Your task to perform on an android device: Open calendar and show me the third week of next month Image 0: 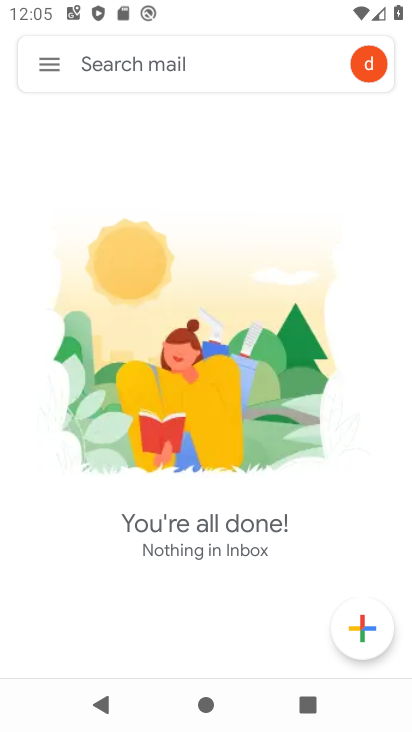
Step 0: press home button
Your task to perform on an android device: Open calendar and show me the third week of next month Image 1: 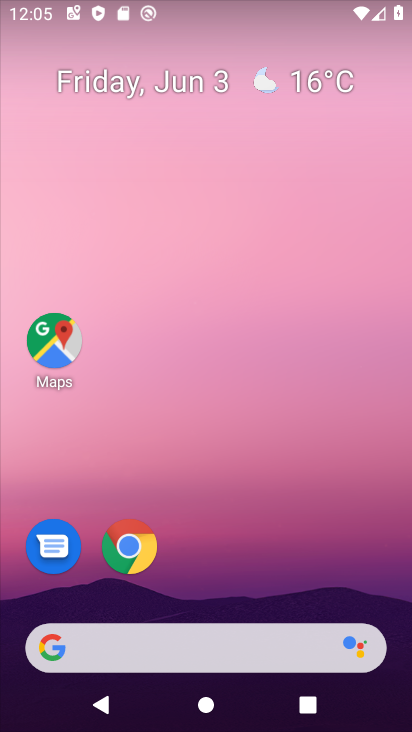
Step 1: drag from (236, 564) to (206, 91)
Your task to perform on an android device: Open calendar and show me the third week of next month Image 2: 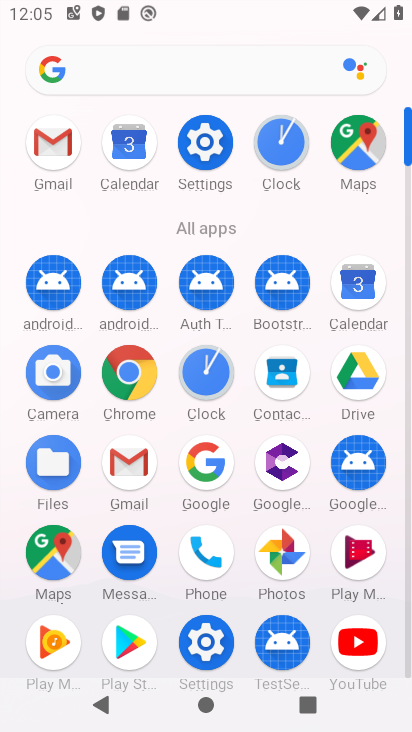
Step 2: click (357, 282)
Your task to perform on an android device: Open calendar and show me the third week of next month Image 3: 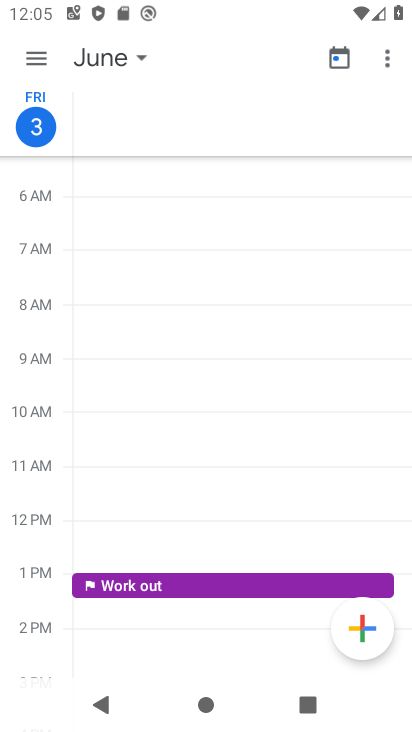
Step 3: click (33, 59)
Your task to perform on an android device: Open calendar and show me the third week of next month Image 4: 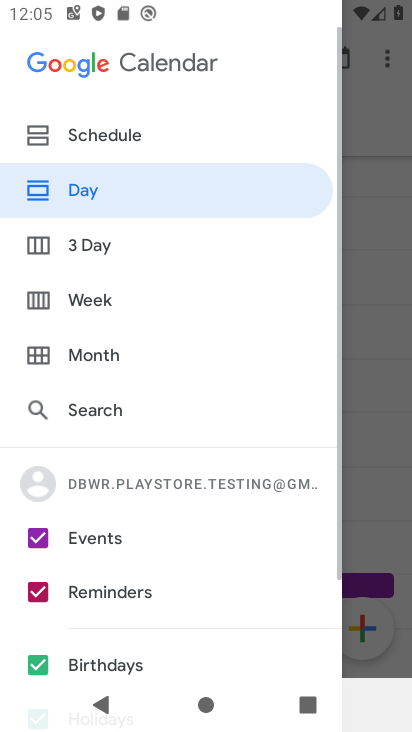
Step 4: click (85, 290)
Your task to perform on an android device: Open calendar and show me the third week of next month Image 5: 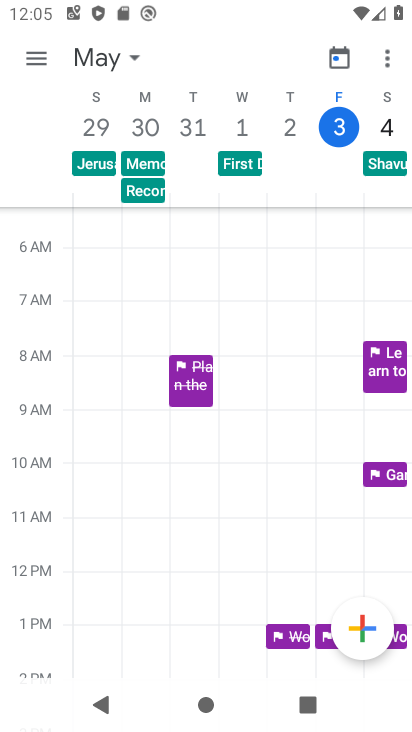
Step 5: click (134, 54)
Your task to perform on an android device: Open calendar and show me the third week of next month Image 6: 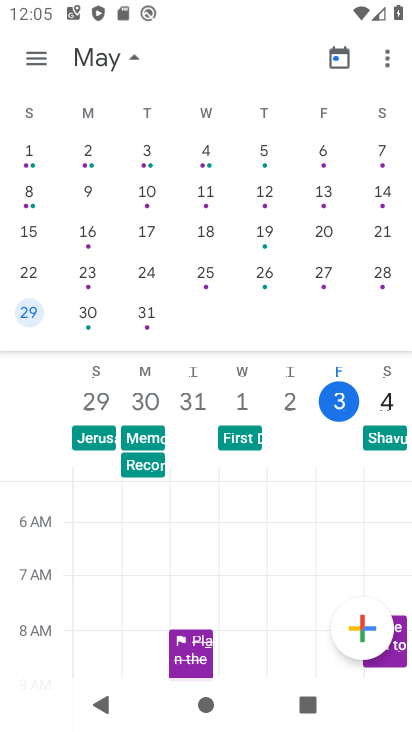
Step 6: drag from (363, 185) to (10, 237)
Your task to perform on an android device: Open calendar and show me the third week of next month Image 7: 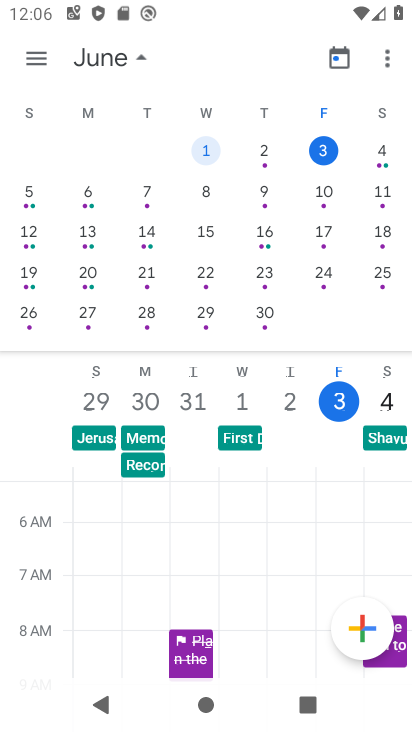
Step 7: click (264, 222)
Your task to perform on an android device: Open calendar and show me the third week of next month Image 8: 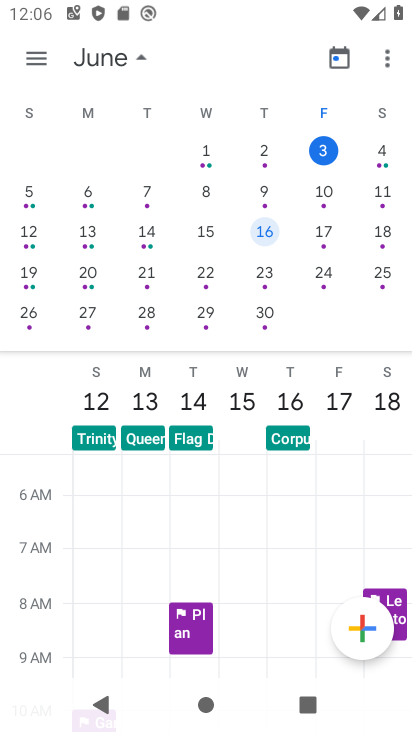
Step 8: task complete